Your task to perform on an android device: Go to battery settings Image 0: 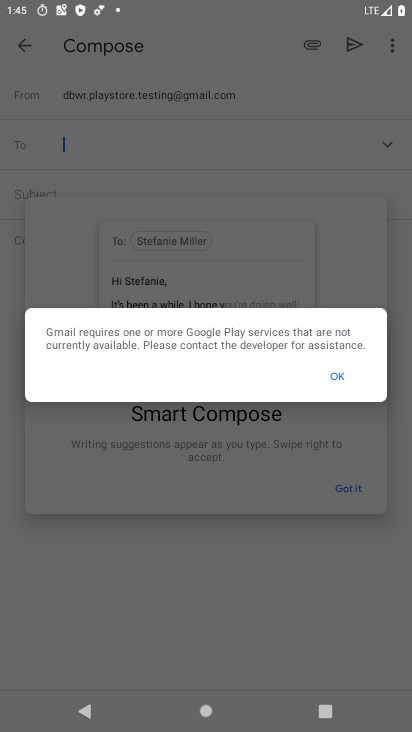
Step 0: press home button
Your task to perform on an android device: Go to battery settings Image 1: 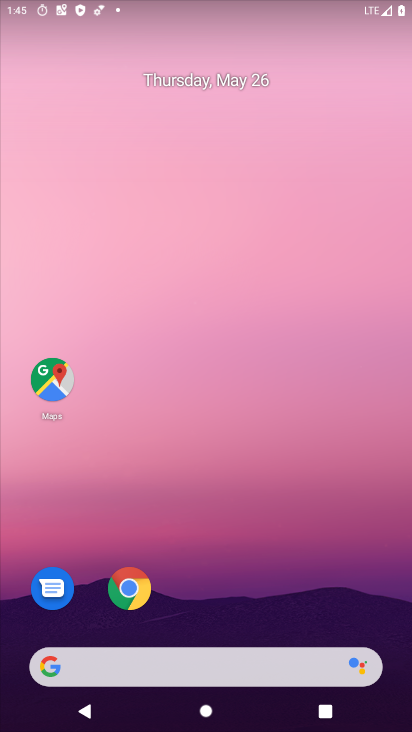
Step 1: drag from (404, 701) to (391, 268)
Your task to perform on an android device: Go to battery settings Image 2: 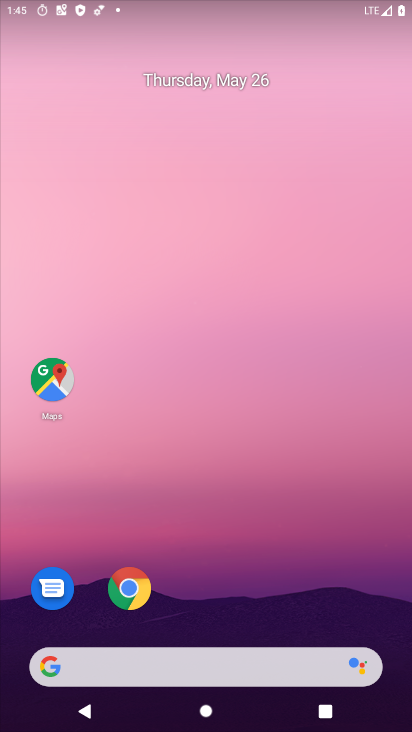
Step 2: drag from (389, 710) to (330, 263)
Your task to perform on an android device: Go to battery settings Image 3: 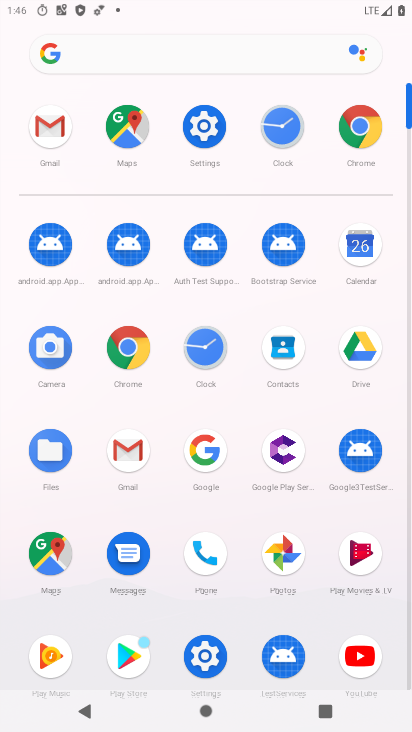
Step 3: click (208, 658)
Your task to perform on an android device: Go to battery settings Image 4: 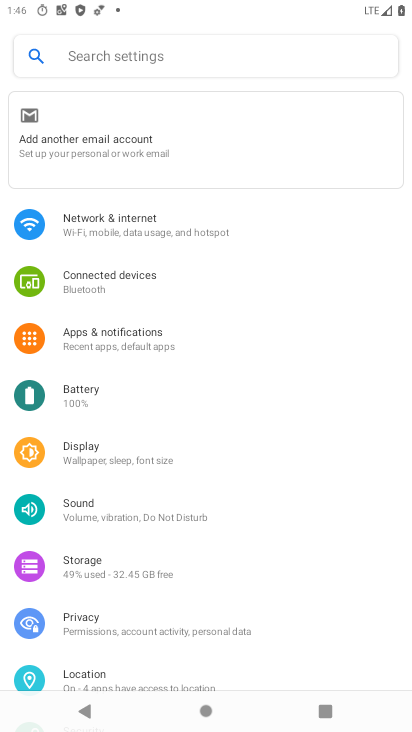
Step 4: click (78, 399)
Your task to perform on an android device: Go to battery settings Image 5: 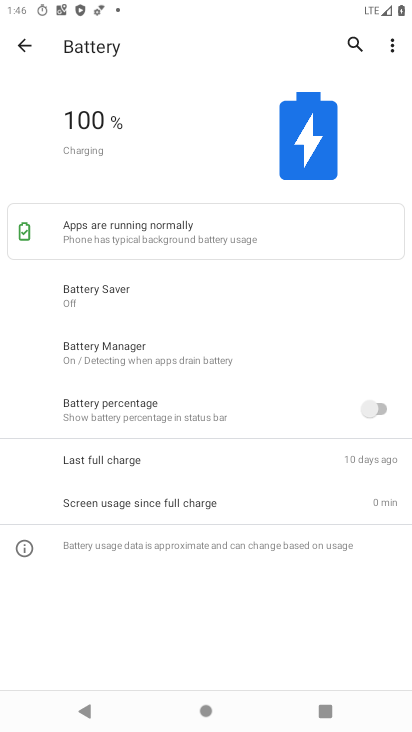
Step 5: task complete